Your task to perform on an android device: change the clock style Image 0: 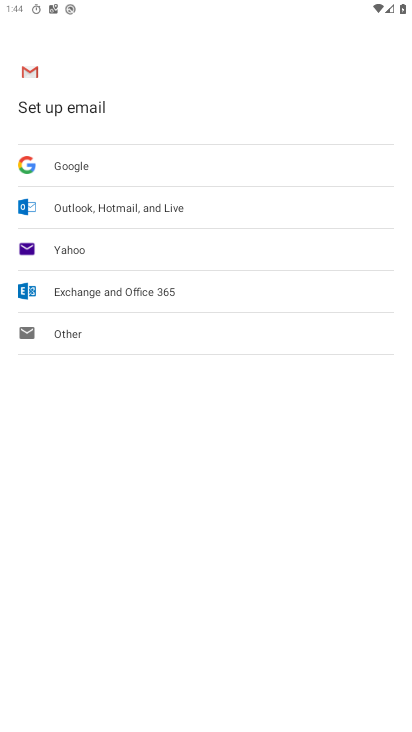
Step 0: press home button
Your task to perform on an android device: change the clock style Image 1: 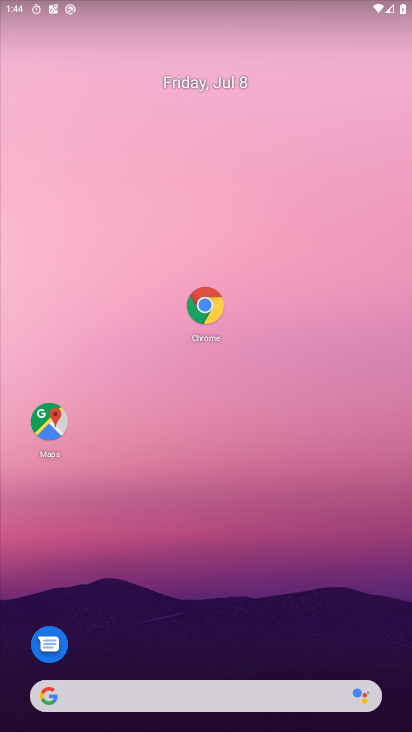
Step 1: drag from (214, 671) to (245, 389)
Your task to perform on an android device: change the clock style Image 2: 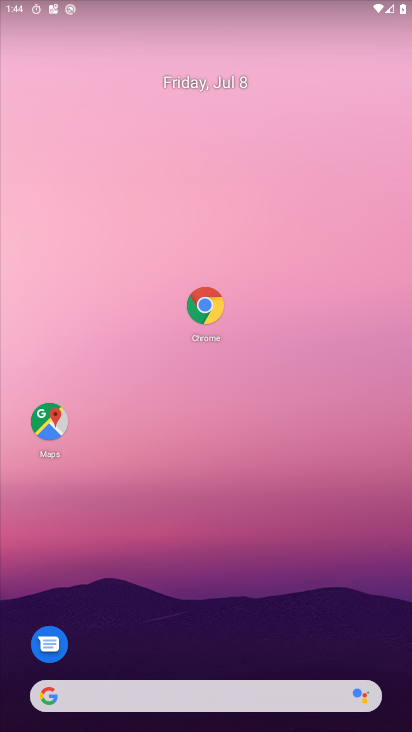
Step 2: drag from (160, 679) to (160, 291)
Your task to perform on an android device: change the clock style Image 3: 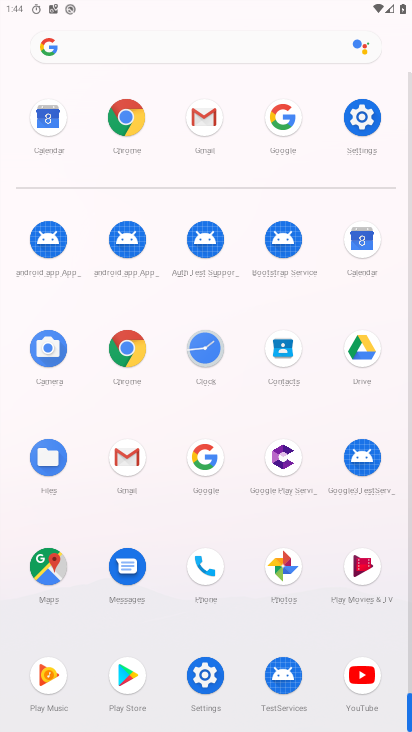
Step 3: click (207, 350)
Your task to perform on an android device: change the clock style Image 4: 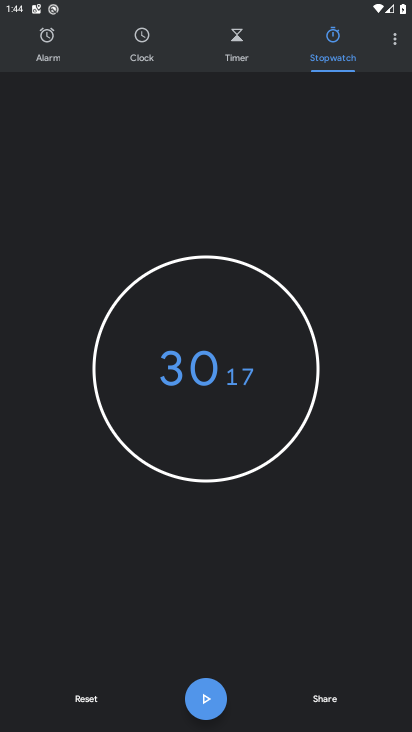
Step 4: click (398, 35)
Your task to perform on an android device: change the clock style Image 5: 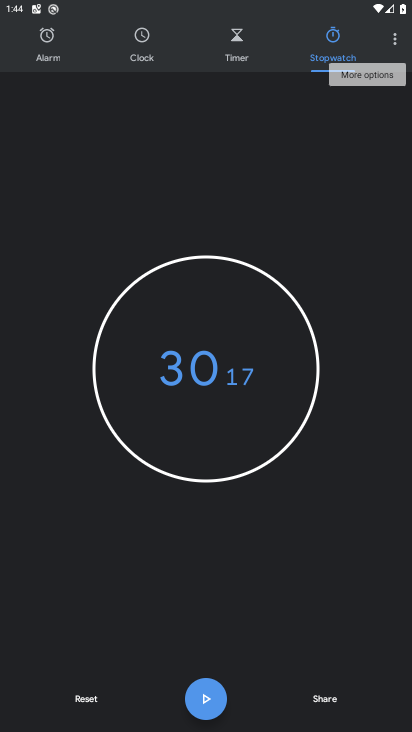
Step 5: click (401, 44)
Your task to perform on an android device: change the clock style Image 6: 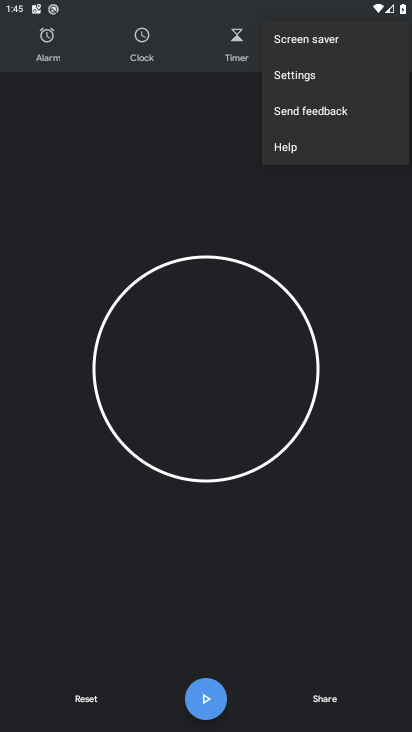
Step 6: click (329, 70)
Your task to perform on an android device: change the clock style Image 7: 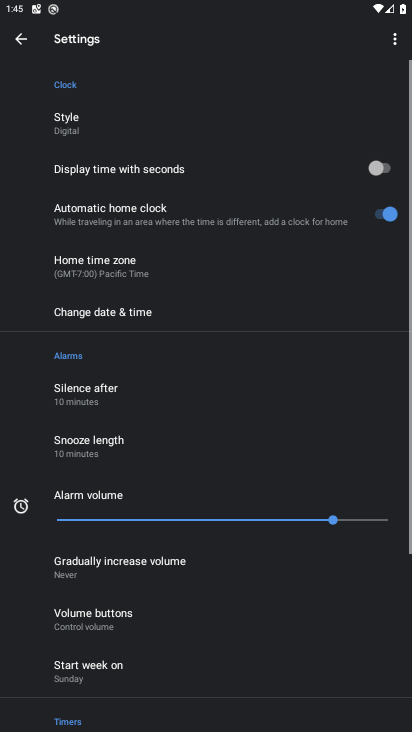
Step 7: click (76, 123)
Your task to perform on an android device: change the clock style Image 8: 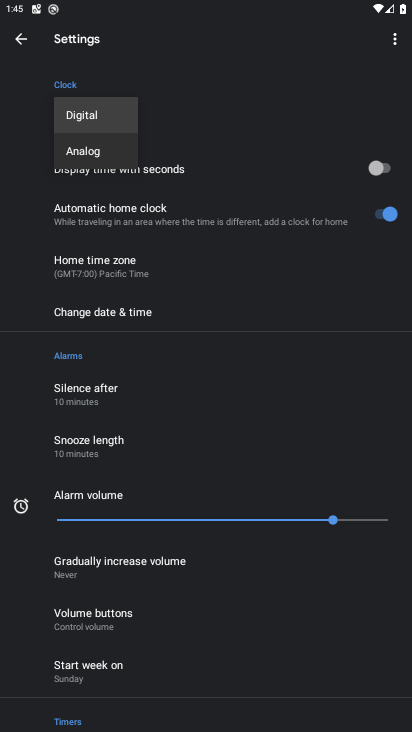
Step 8: click (102, 154)
Your task to perform on an android device: change the clock style Image 9: 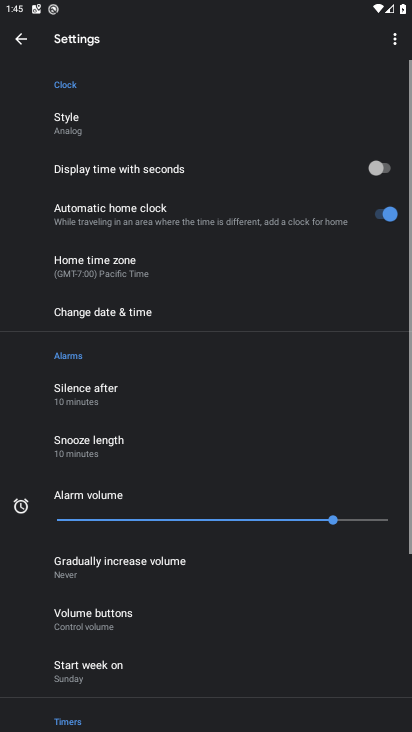
Step 9: task complete